Your task to perform on an android device: turn off location Image 0: 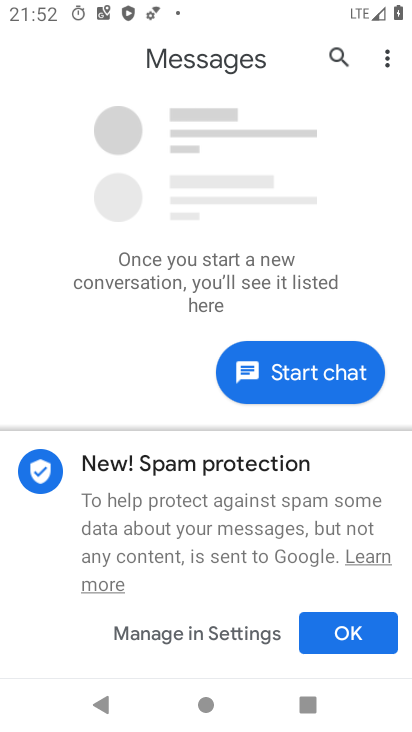
Step 0: press home button
Your task to perform on an android device: turn off location Image 1: 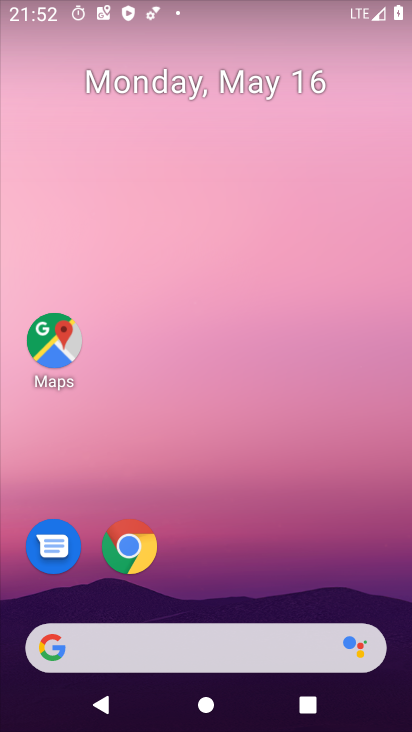
Step 1: drag from (262, 681) to (207, 160)
Your task to perform on an android device: turn off location Image 2: 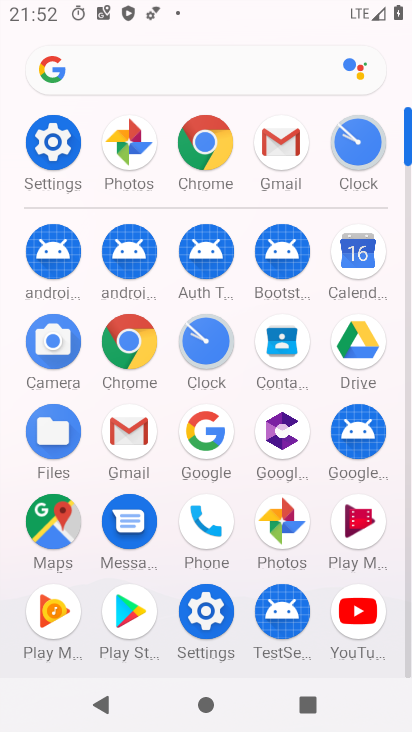
Step 2: click (62, 151)
Your task to perform on an android device: turn off location Image 3: 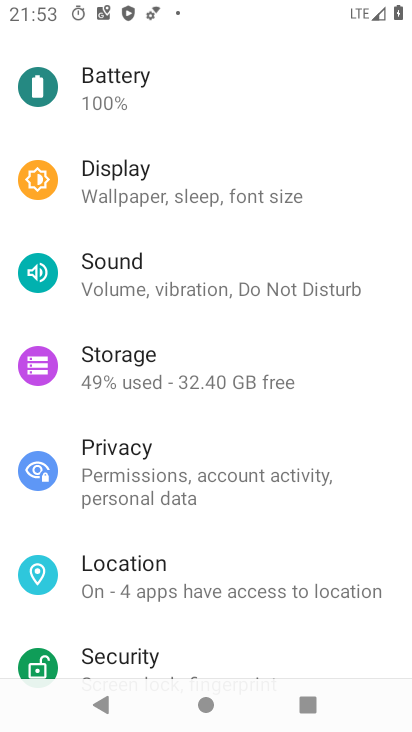
Step 3: click (193, 564)
Your task to perform on an android device: turn off location Image 4: 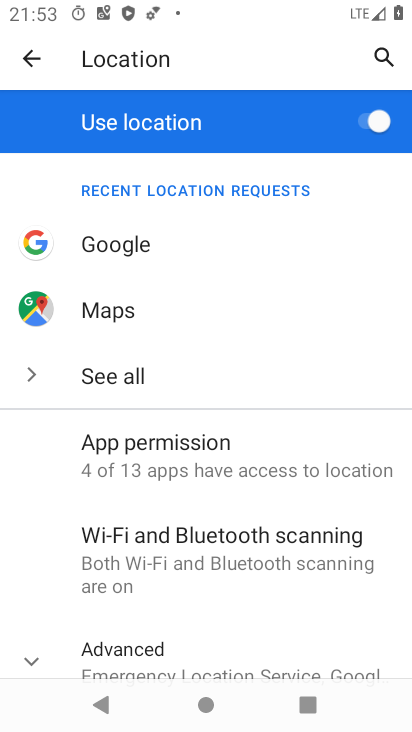
Step 4: click (385, 126)
Your task to perform on an android device: turn off location Image 5: 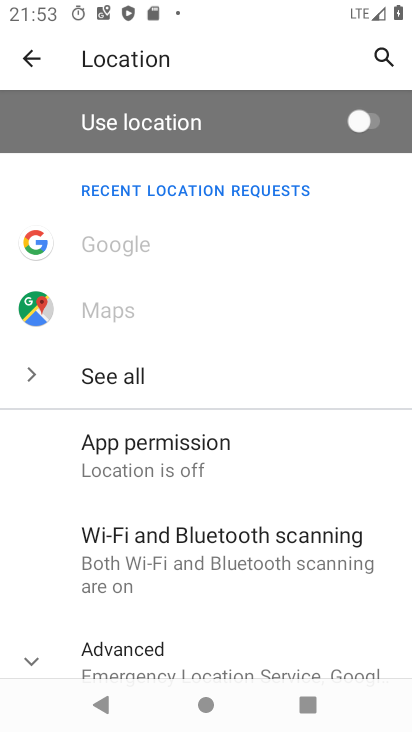
Step 5: task complete